Your task to perform on an android device: toggle javascript in the chrome app Image 0: 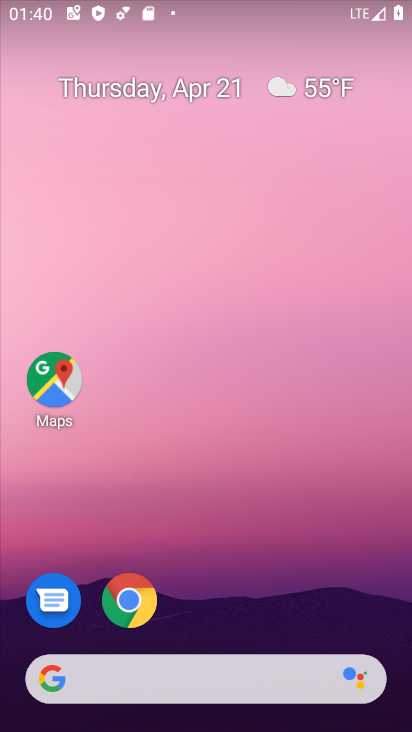
Step 0: click (147, 623)
Your task to perform on an android device: toggle javascript in the chrome app Image 1: 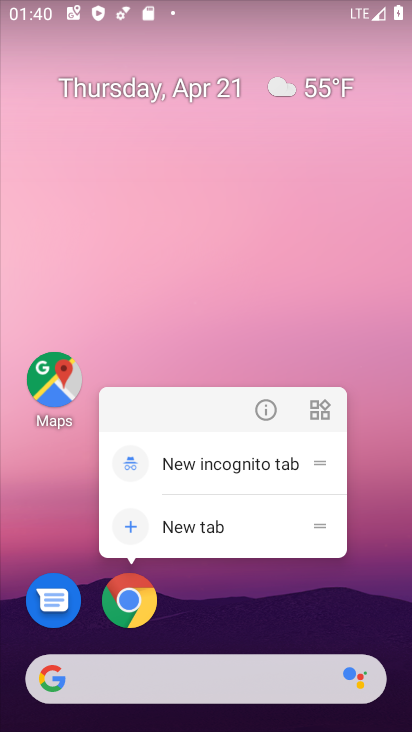
Step 1: click (134, 601)
Your task to perform on an android device: toggle javascript in the chrome app Image 2: 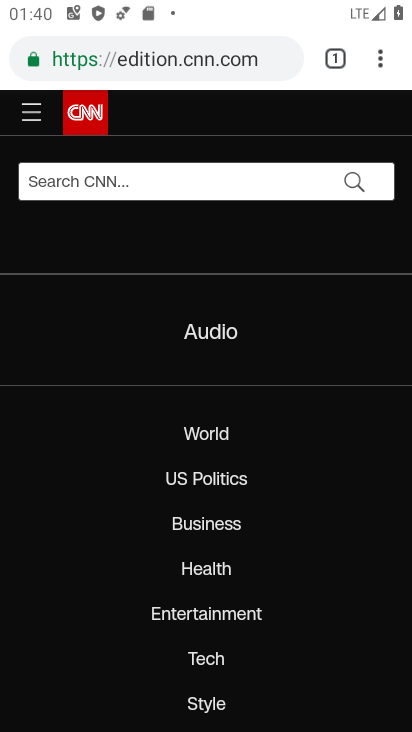
Step 2: drag from (377, 62) to (200, 631)
Your task to perform on an android device: toggle javascript in the chrome app Image 3: 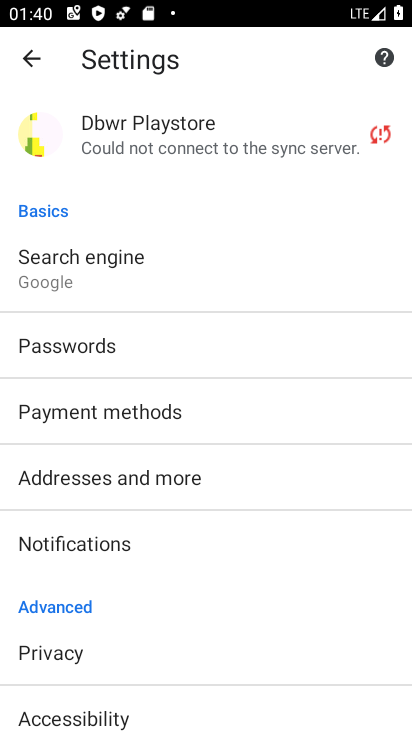
Step 3: drag from (176, 654) to (199, 240)
Your task to perform on an android device: toggle javascript in the chrome app Image 4: 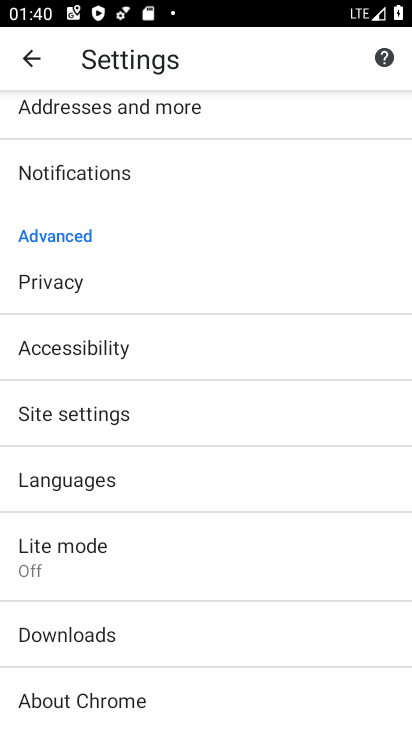
Step 4: click (112, 429)
Your task to perform on an android device: toggle javascript in the chrome app Image 5: 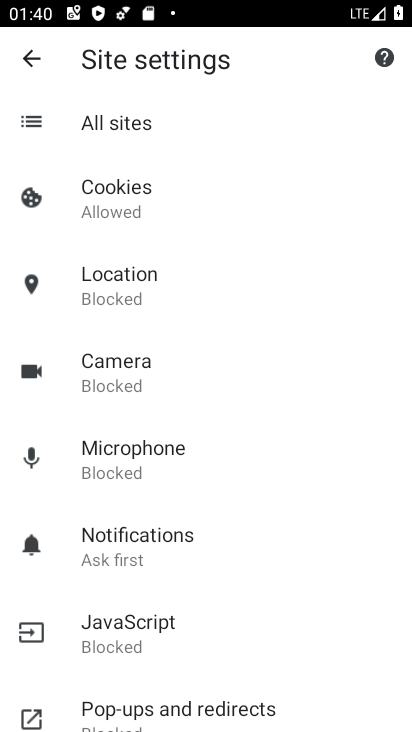
Step 5: click (183, 631)
Your task to perform on an android device: toggle javascript in the chrome app Image 6: 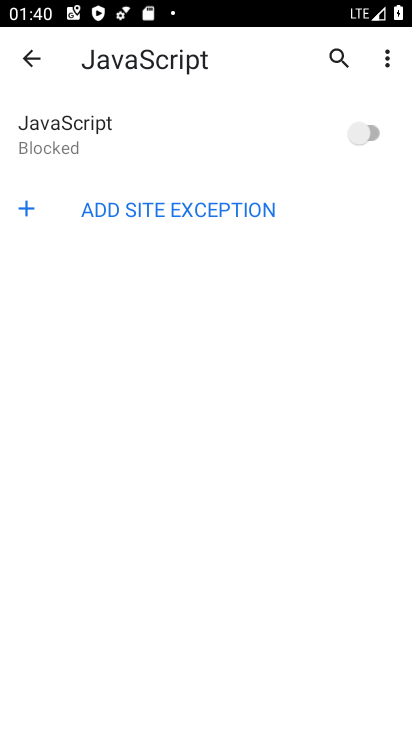
Step 6: click (368, 133)
Your task to perform on an android device: toggle javascript in the chrome app Image 7: 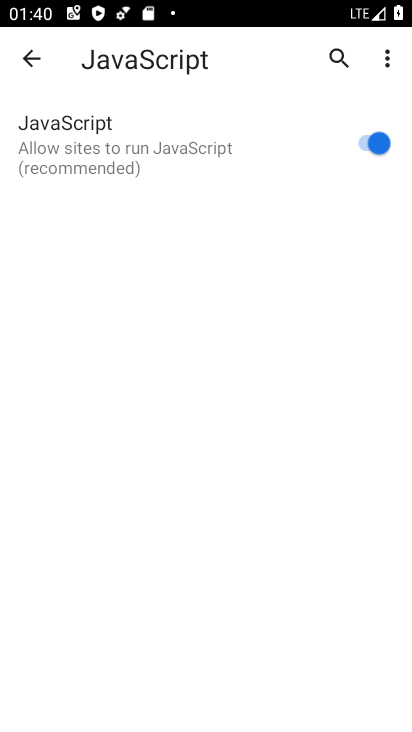
Step 7: task complete